Your task to perform on an android device: Open Android settings Image 0: 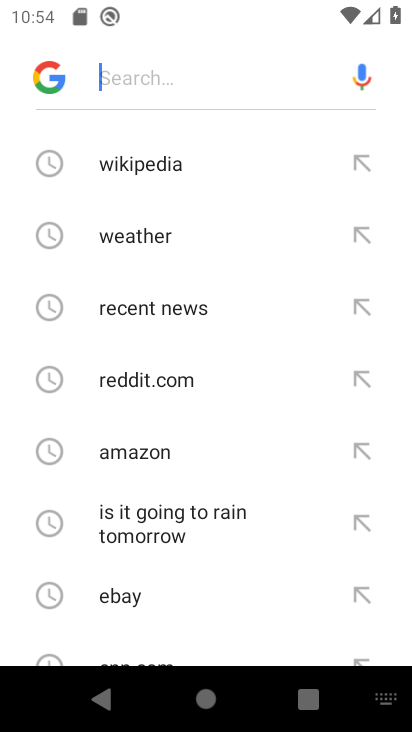
Step 0: press home button
Your task to perform on an android device: Open Android settings Image 1: 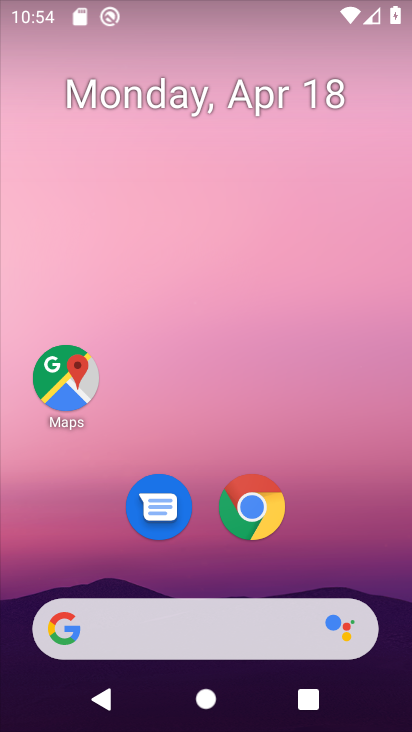
Step 1: drag from (168, 528) to (256, 12)
Your task to perform on an android device: Open Android settings Image 2: 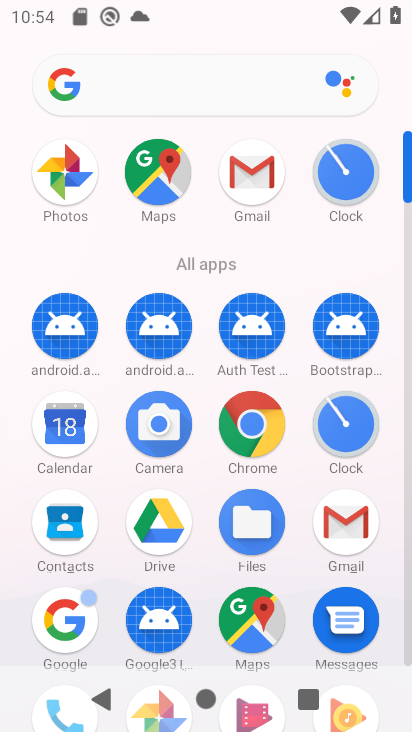
Step 2: drag from (198, 622) to (142, 6)
Your task to perform on an android device: Open Android settings Image 3: 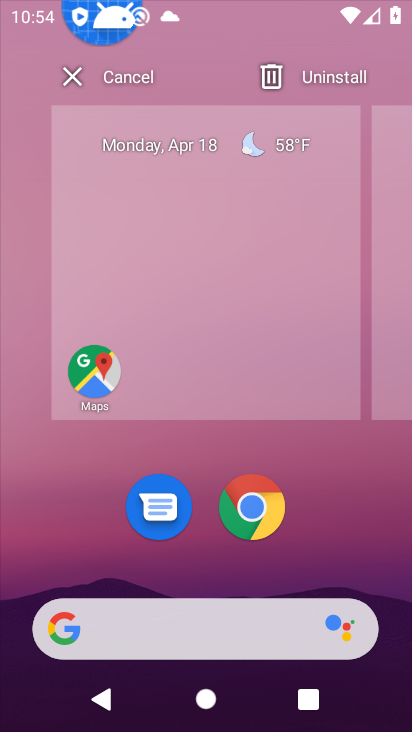
Step 3: drag from (199, 557) to (199, 4)
Your task to perform on an android device: Open Android settings Image 4: 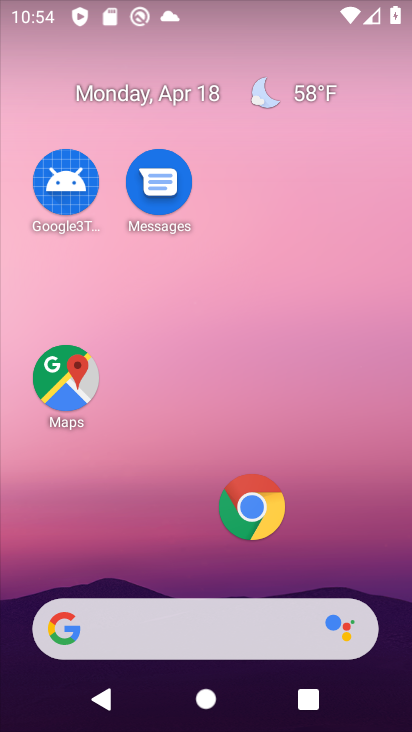
Step 4: click (185, 580)
Your task to perform on an android device: Open Android settings Image 5: 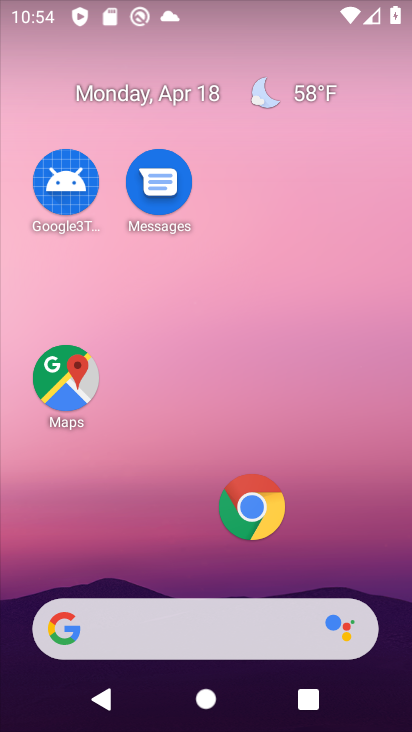
Step 5: drag from (186, 575) to (228, 11)
Your task to perform on an android device: Open Android settings Image 6: 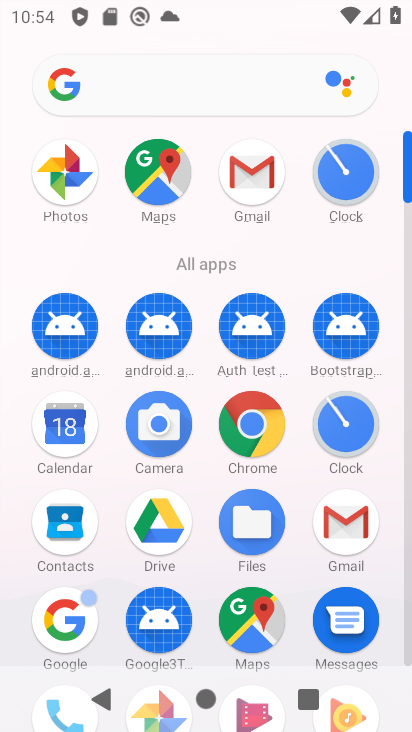
Step 6: drag from (205, 563) to (184, 89)
Your task to perform on an android device: Open Android settings Image 7: 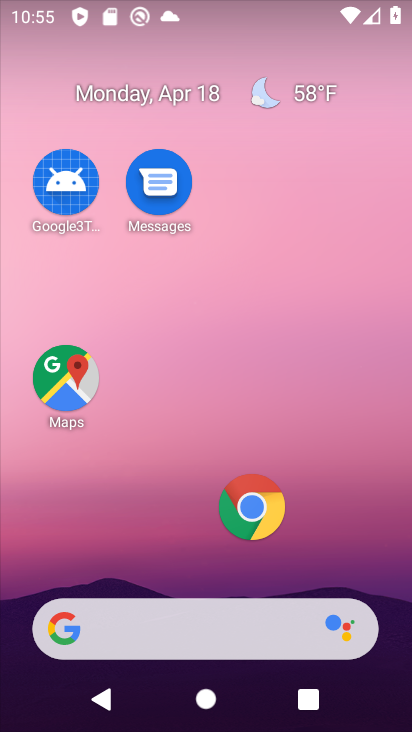
Step 7: drag from (209, 571) to (131, 8)
Your task to perform on an android device: Open Android settings Image 8: 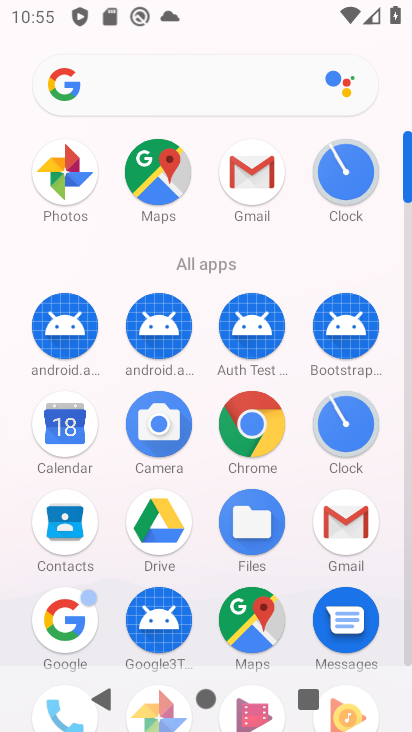
Step 8: drag from (208, 571) to (212, 3)
Your task to perform on an android device: Open Android settings Image 9: 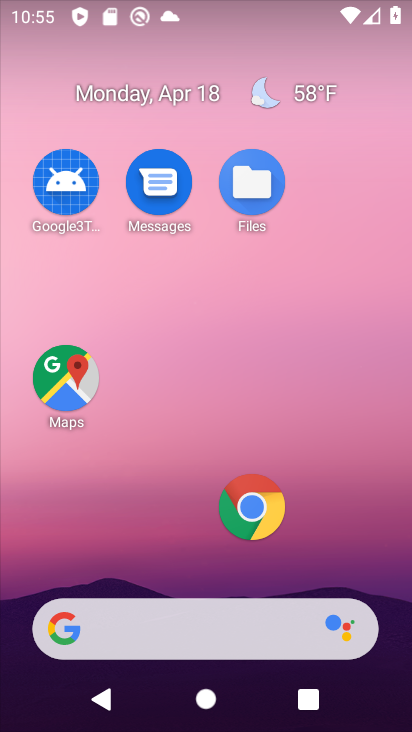
Step 9: drag from (201, 603) to (209, 7)
Your task to perform on an android device: Open Android settings Image 10: 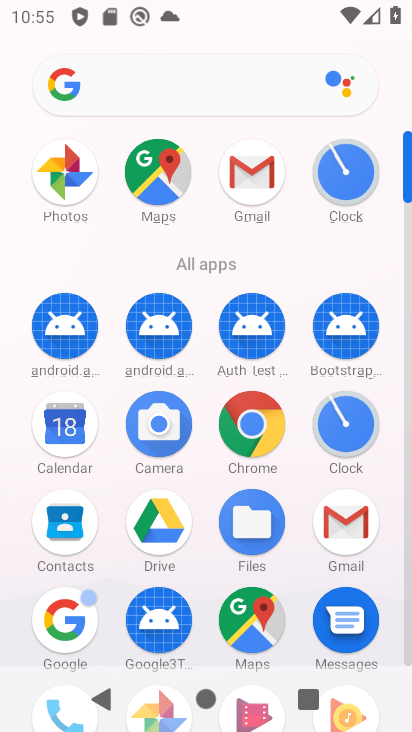
Step 10: drag from (200, 658) to (217, 1)
Your task to perform on an android device: Open Android settings Image 11: 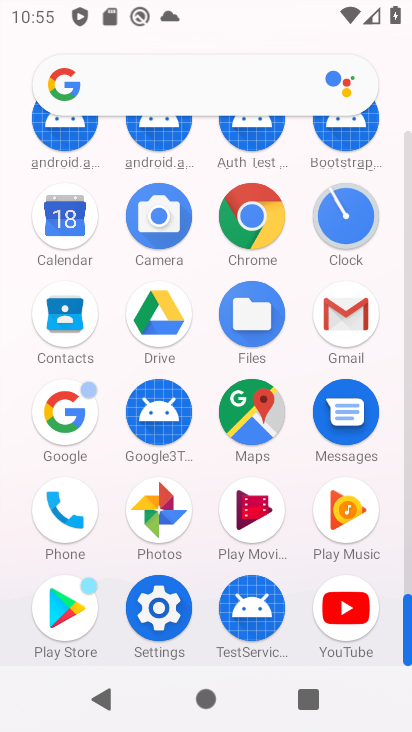
Step 11: click (166, 595)
Your task to perform on an android device: Open Android settings Image 12: 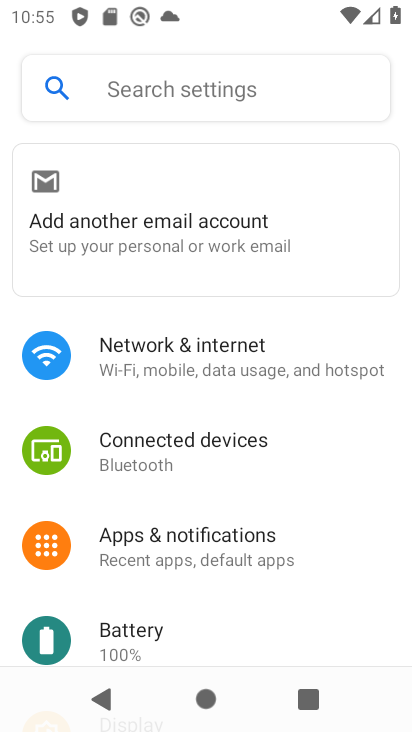
Step 12: task complete